Your task to perform on an android device: Turn off the flashlight Image 0: 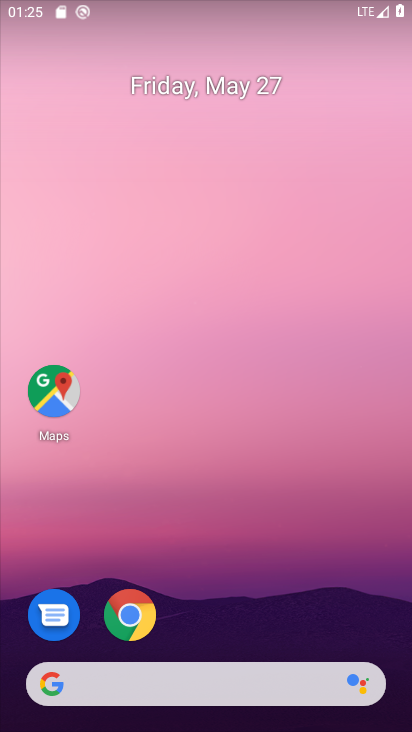
Step 0: drag from (298, 10) to (336, 417)
Your task to perform on an android device: Turn off the flashlight Image 1: 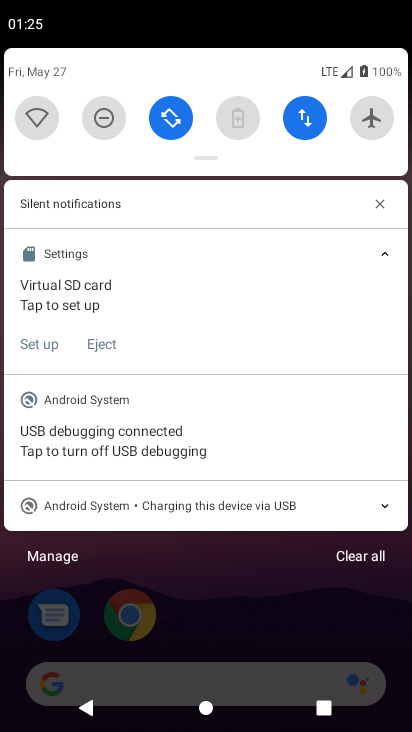
Step 1: drag from (271, 72) to (273, 342)
Your task to perform on an android device: Turn off the flashlight Image 2: 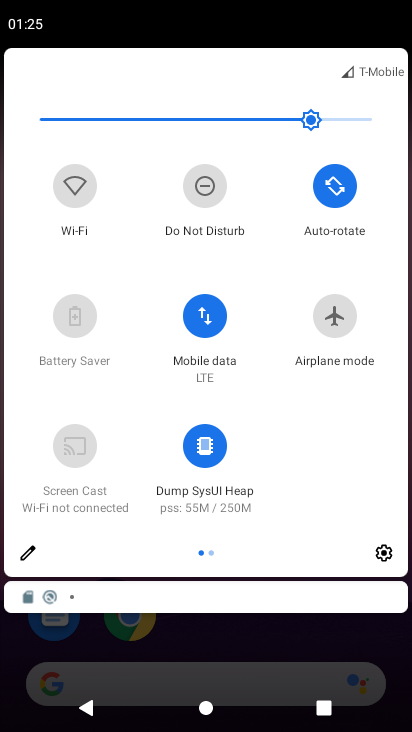
Step 2: click (23, 551)
Your task to perform on an android device: Turn off the flashlight Image 3: 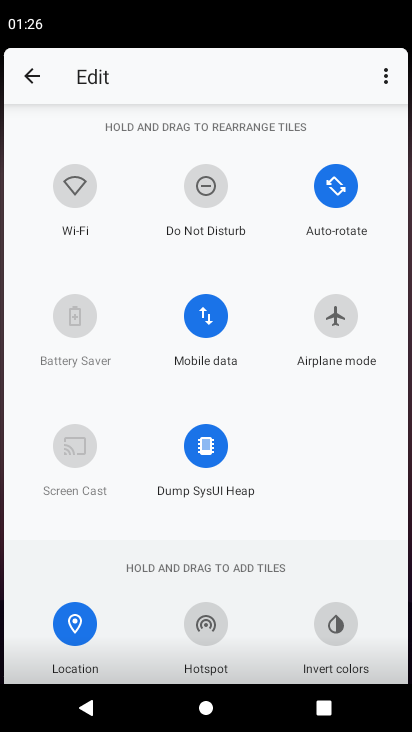
Step 3: task complete